Your task to perform on an android device: What's on the menu at Taco Bell? Image 0: 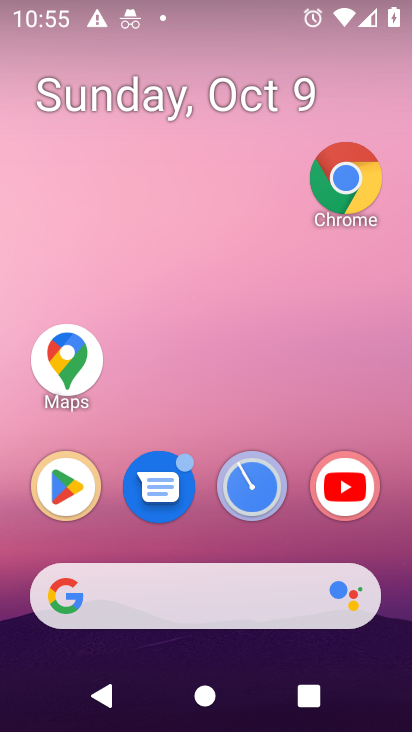
Step 0: drag from (235, 723) to (244, 391)
Your task to perform on an android device: What's on the menu at Taco Bell? Image 1: 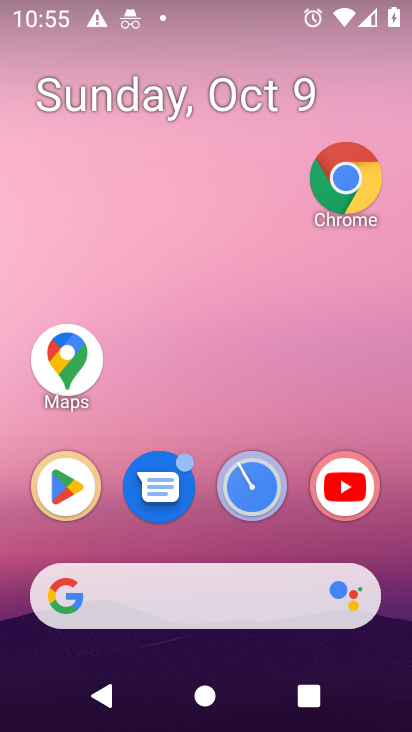
Step 1: drag from (262, 642) to (325, 49)
Your task to perform on an android device: What's on the menu at Taco Bell? Image 2: 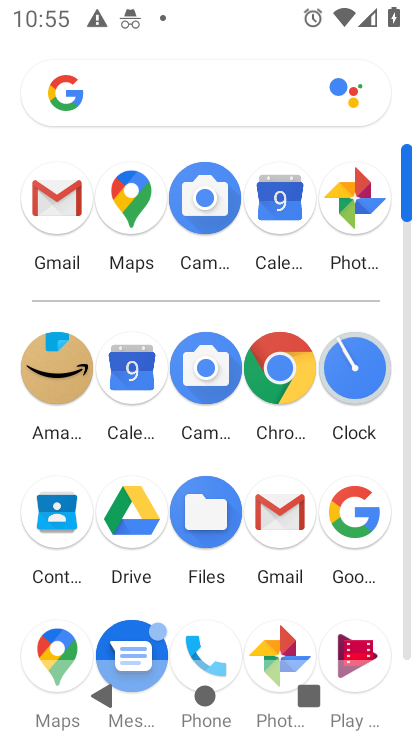
Step 2: click (349, 537)
Your task to perform on an android device: What's on the menu at Taco Bell? Image 3: 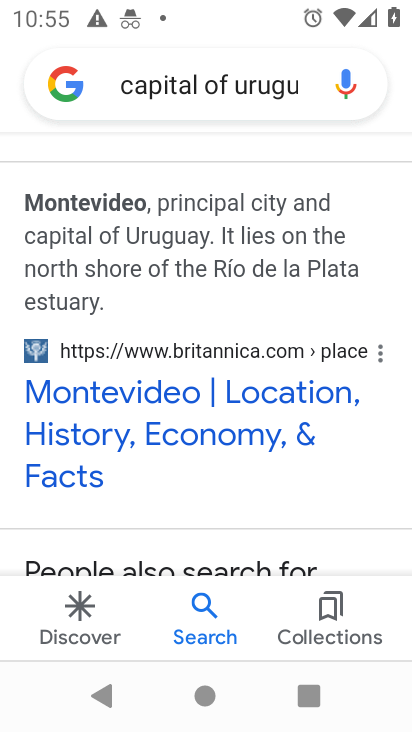
Step 3: click (271, 93)
Your task to perform on an android device: What's on the menu at Taco Bell? Image 4: 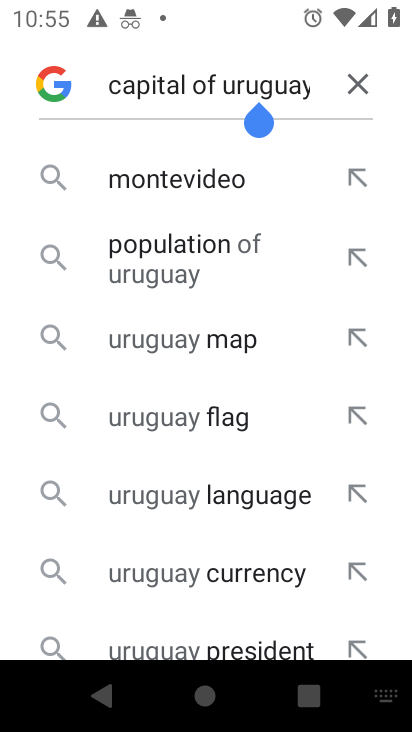
Step 4: click (353, 82)
Your task to perform on an android device: What's on the menu at Taco Bell? Image 5: 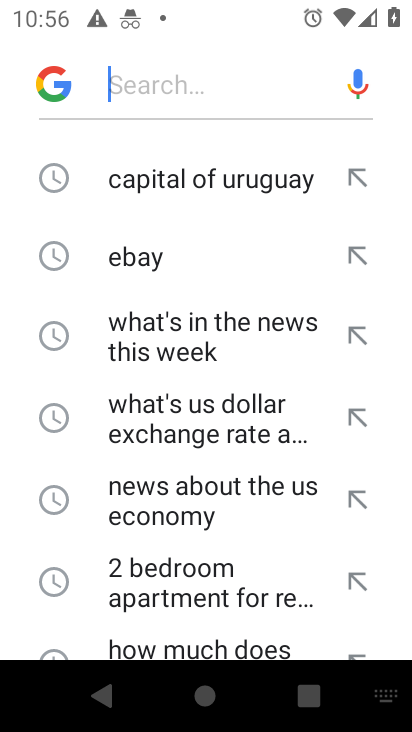
Step 5: type "Taco Bell"
Your task to perform on an android device: What's on the menu at Taco Bell? Image 6: 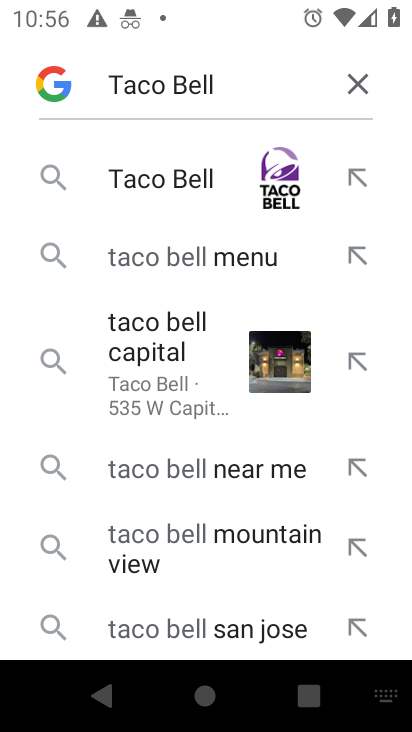
Step 6: click (163, 173)
Your task to perform on an android device: What's on the menu at Taco Bell? Image 7: 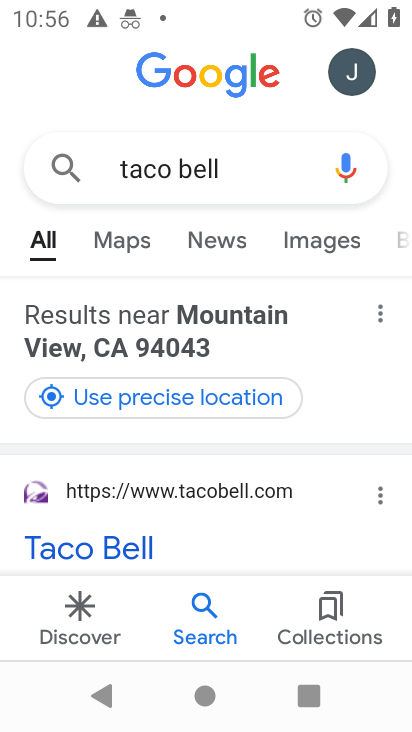
Step 7: click (123, 545)
Your task to perform on an android device: What's on the menu at Taco Bell? Image 8: 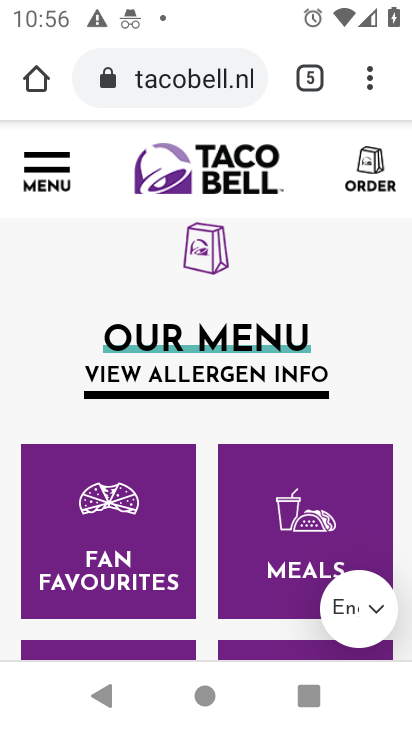
Step 8: drag from (244, 459) to (256, 325)
Your task to perform on an android device: What's on the menu at Taco Bell? Image 9: 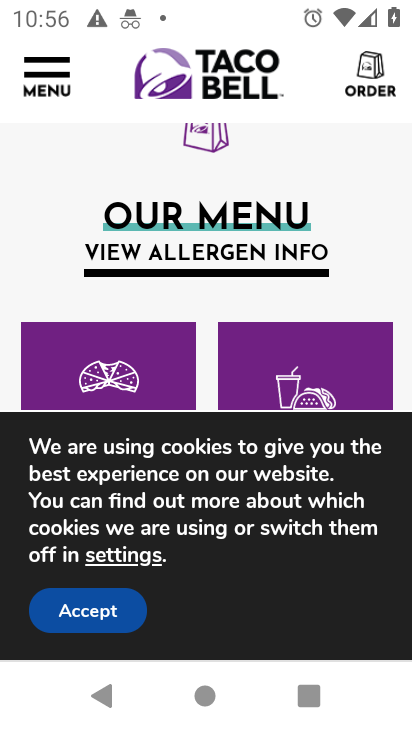
Step 9: click (84, 614)
Your task to perform on an android device: What's on the menu at Taco Bell? Image 10: 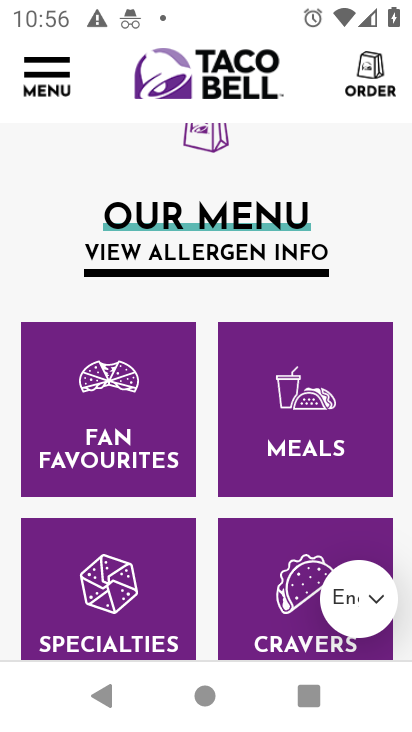
Step 10: drag from (182, 595) to (189, 330)
Your task to perform on an android device: What's on the menu at Taco Bell? Image 11: 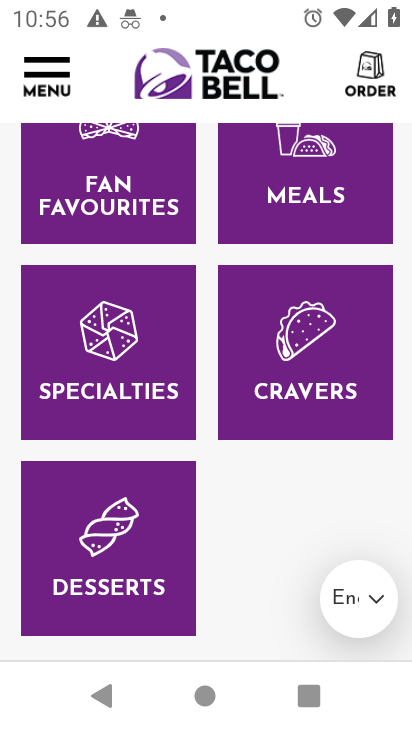
Step 11: drag from (188, 490) to (199, 326)
Your task to perform on an android device: What's on the menu at Taco Bell? Image 12: 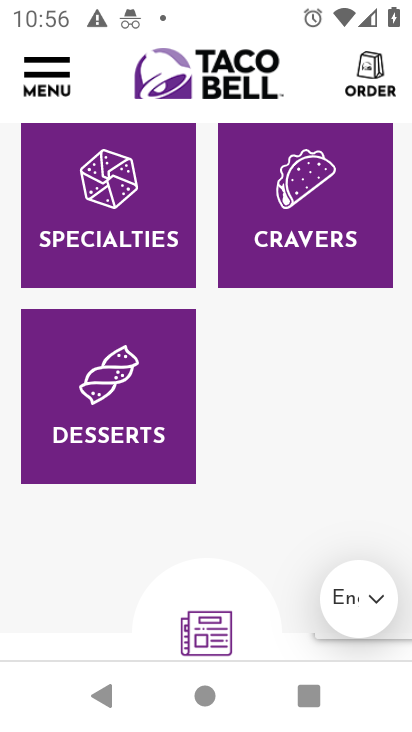
Step 12: drag from (209, 593) to (234, 250)
Your task to perform on an android device: What's on the menu at Taco Bell? Image 13: 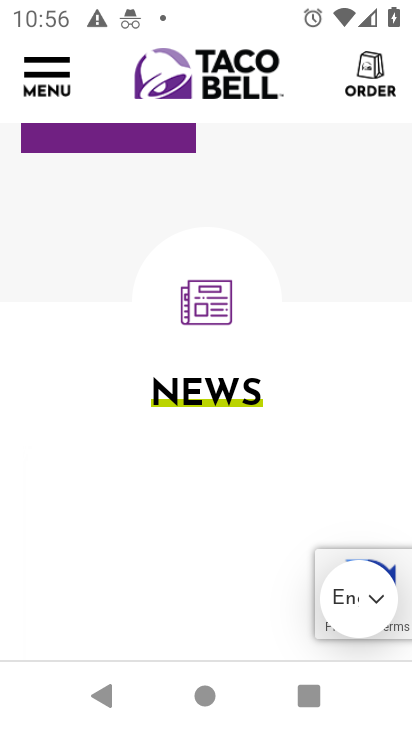
Step 13: click (36, 74)
Your task to perform on an android device: What's on the menu at Taco Bell? Image 14: 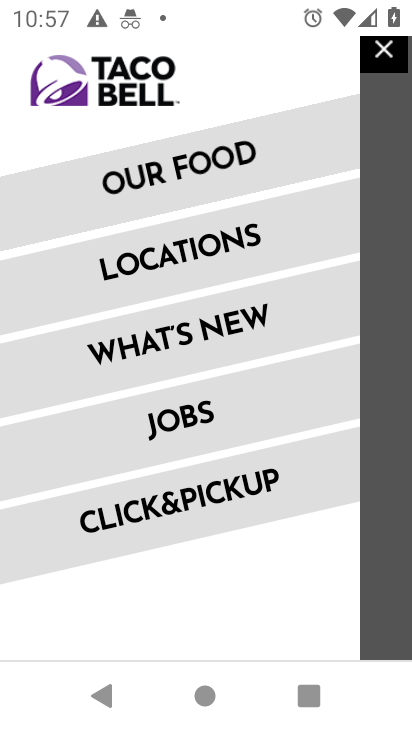
Step 14: task complete